Your task to perform on an android device: open app "Pluto TV - Live TV and Movies" Image 0: 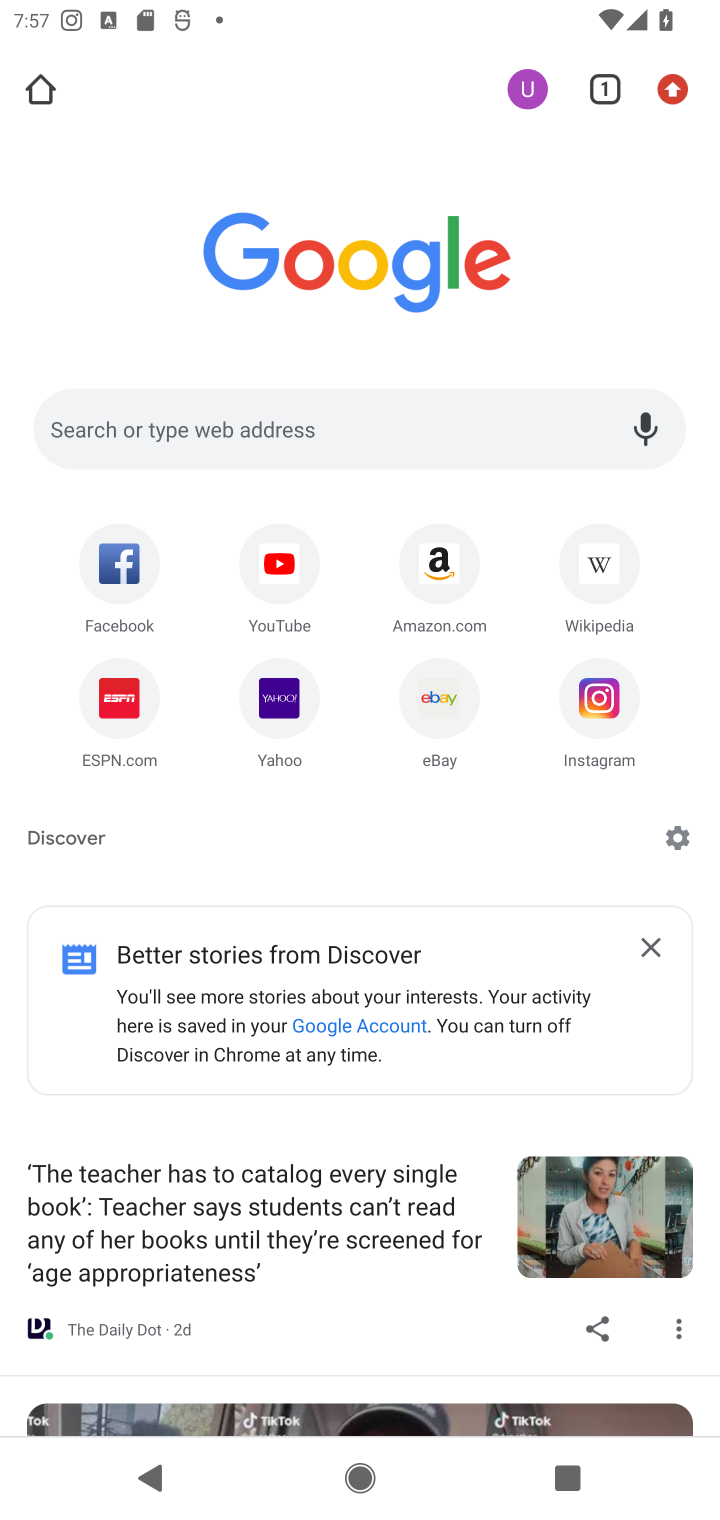
Step 0: press home button
Your task to perform on an android device: open app "Pluto TV - Live TV and Movies" Image 1: 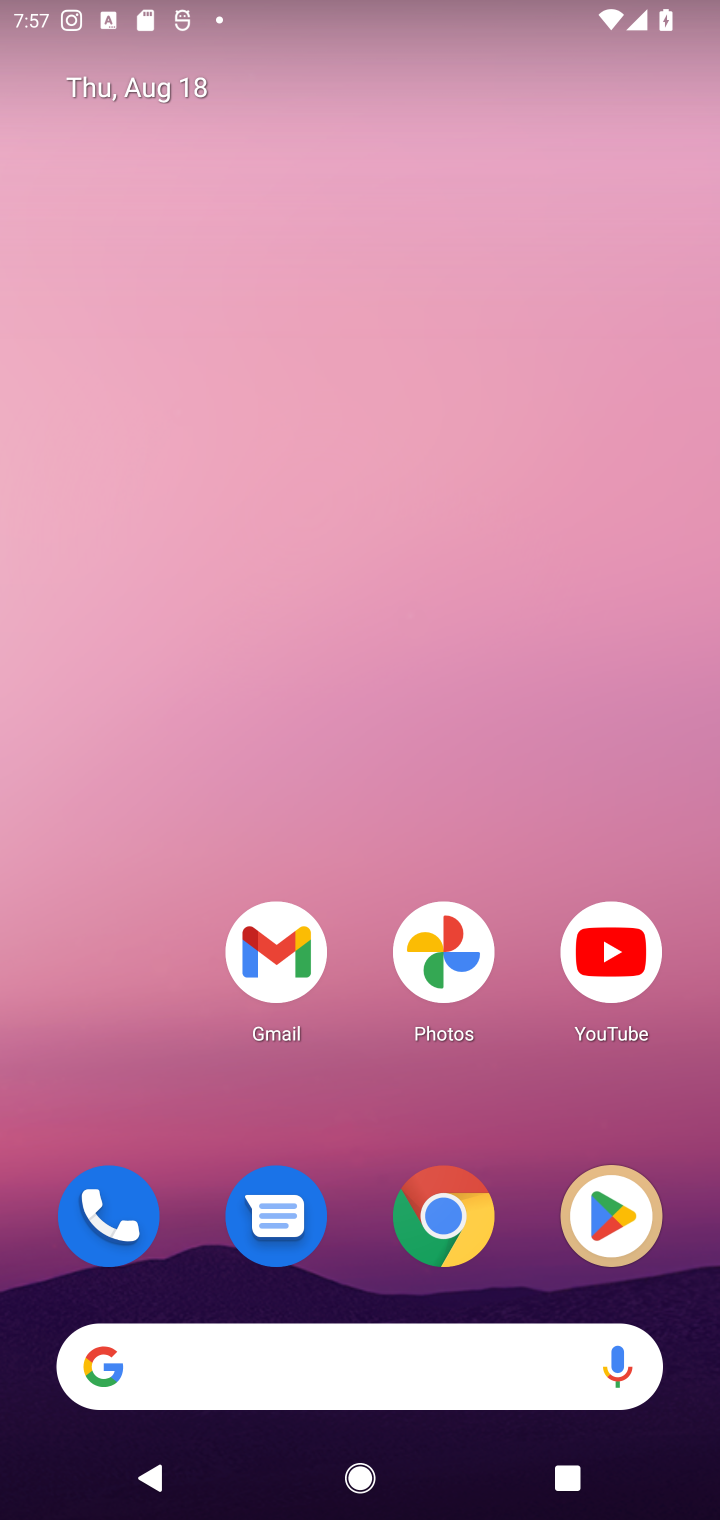
Step 1: click (609, 1206)
Your task to perform on an android device: open app "Pluto TV - Live TV and Movies" Image 2: 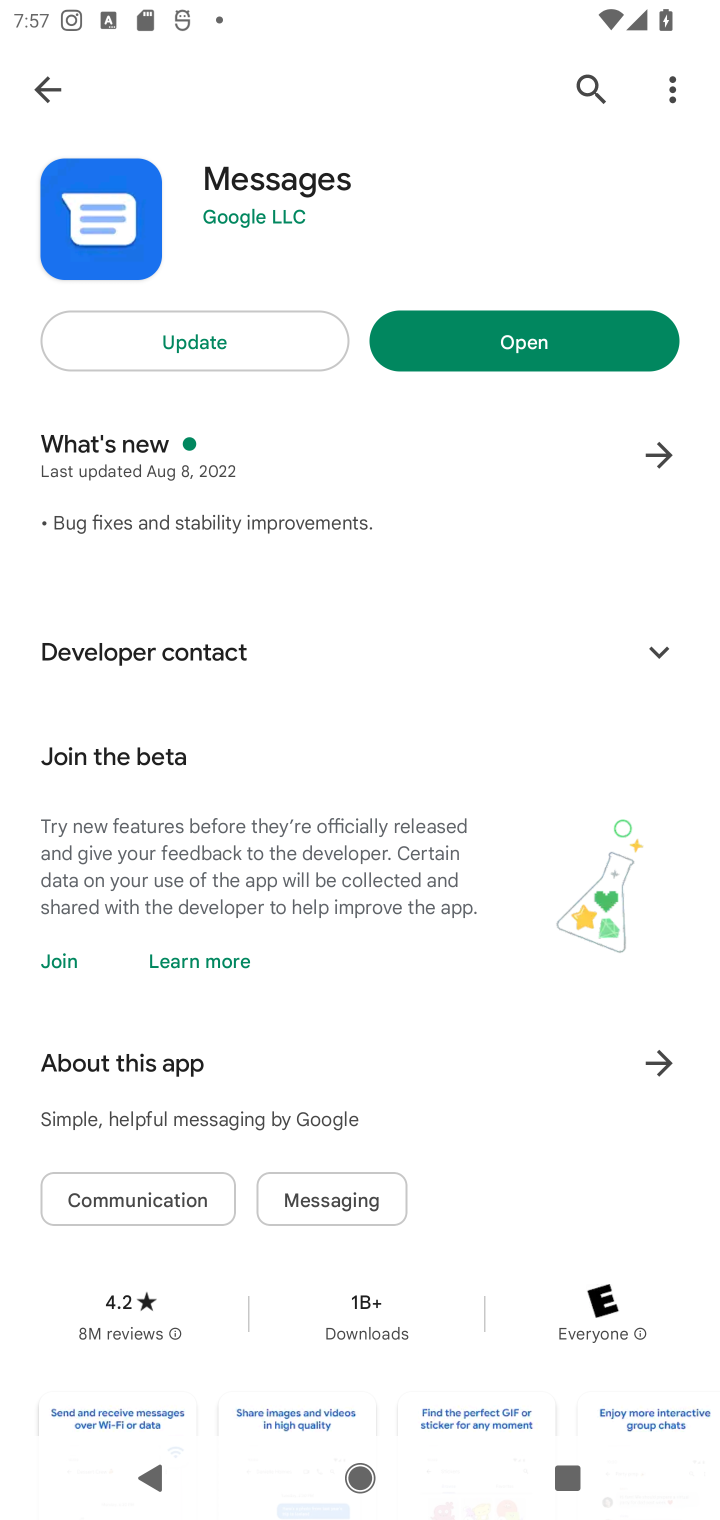
Step 2: click (593, 98)
Your task to perform on an android device: open app "Pluto TV - Live TV and Movies" Image 3: 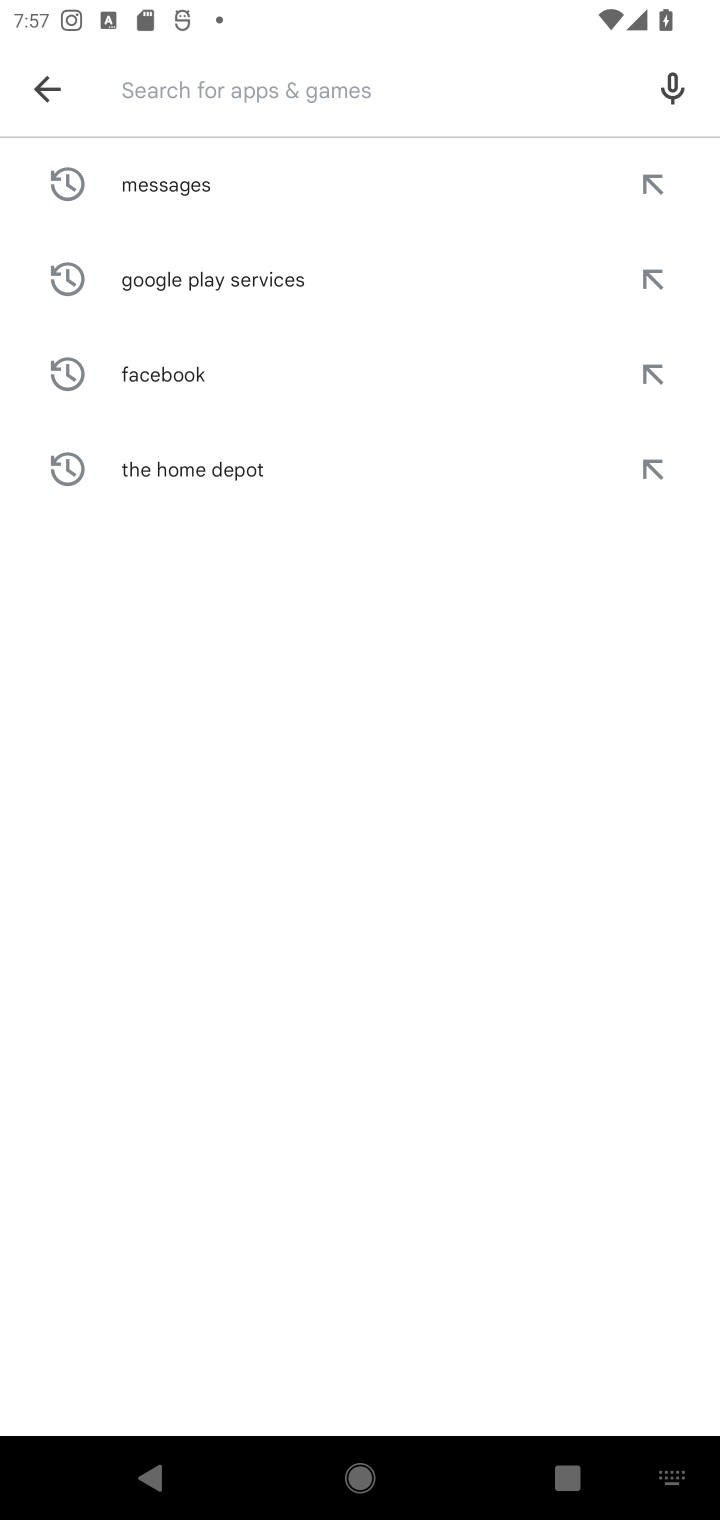
Step 3: type "Pluto TV - Live TV and Movies"
Your task to perform on an android device: open app "Pluto TV - Live TV and Movies" Image 4: 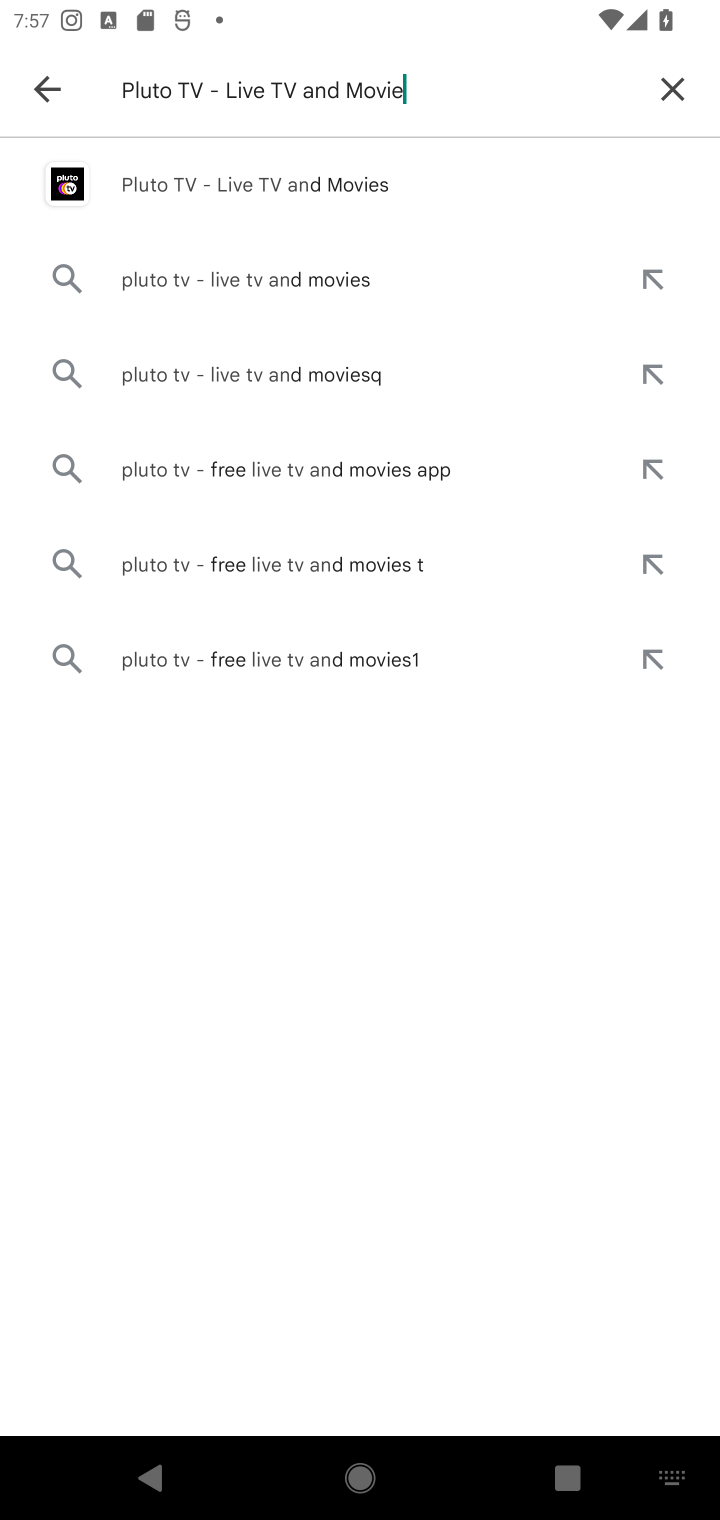
Step 4: type ""
Your task to perform on an android device: open app "Pluto TV - Live TV and Movies" Image 5: 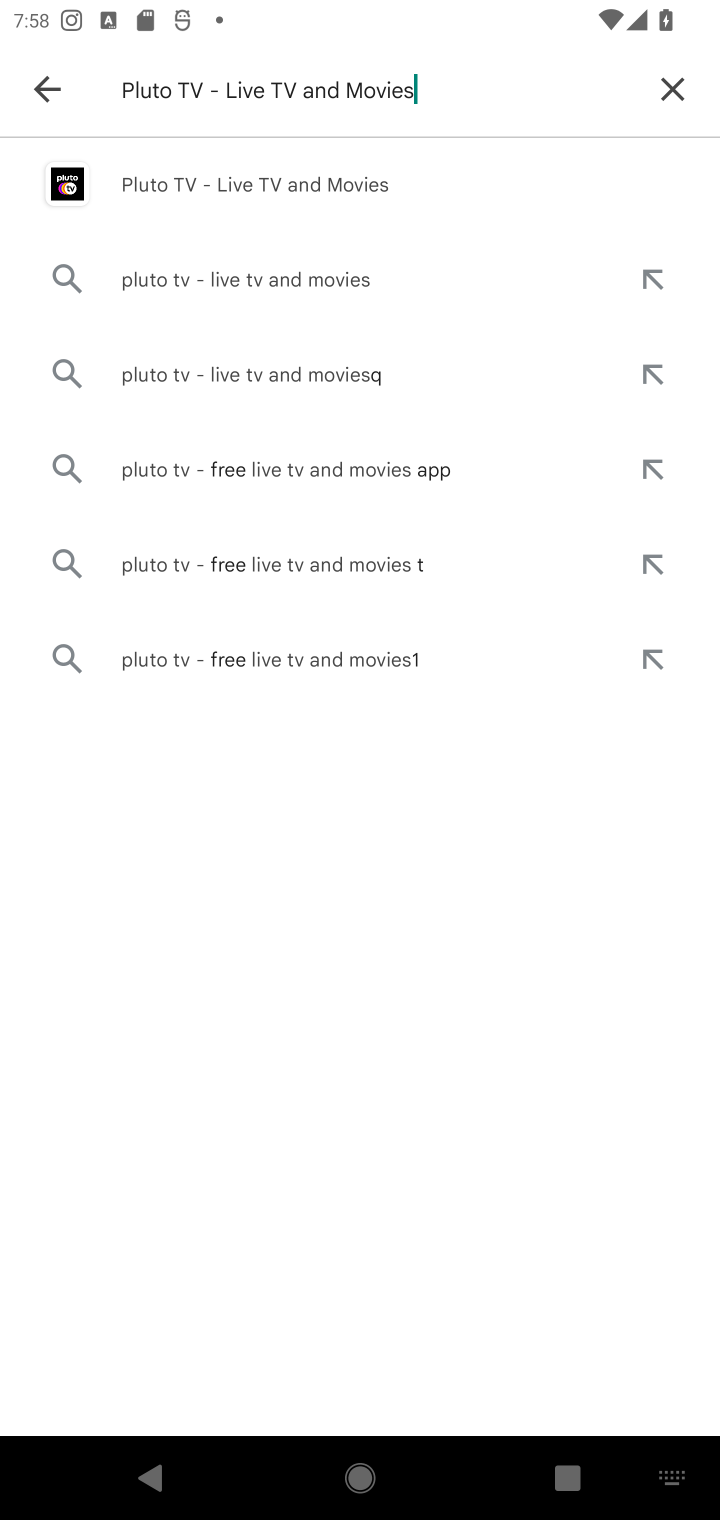
Step 5: click (257, 178)
Your task to perform on an android device: open app "Pluto TV - Live TV and Movies" Image 6: 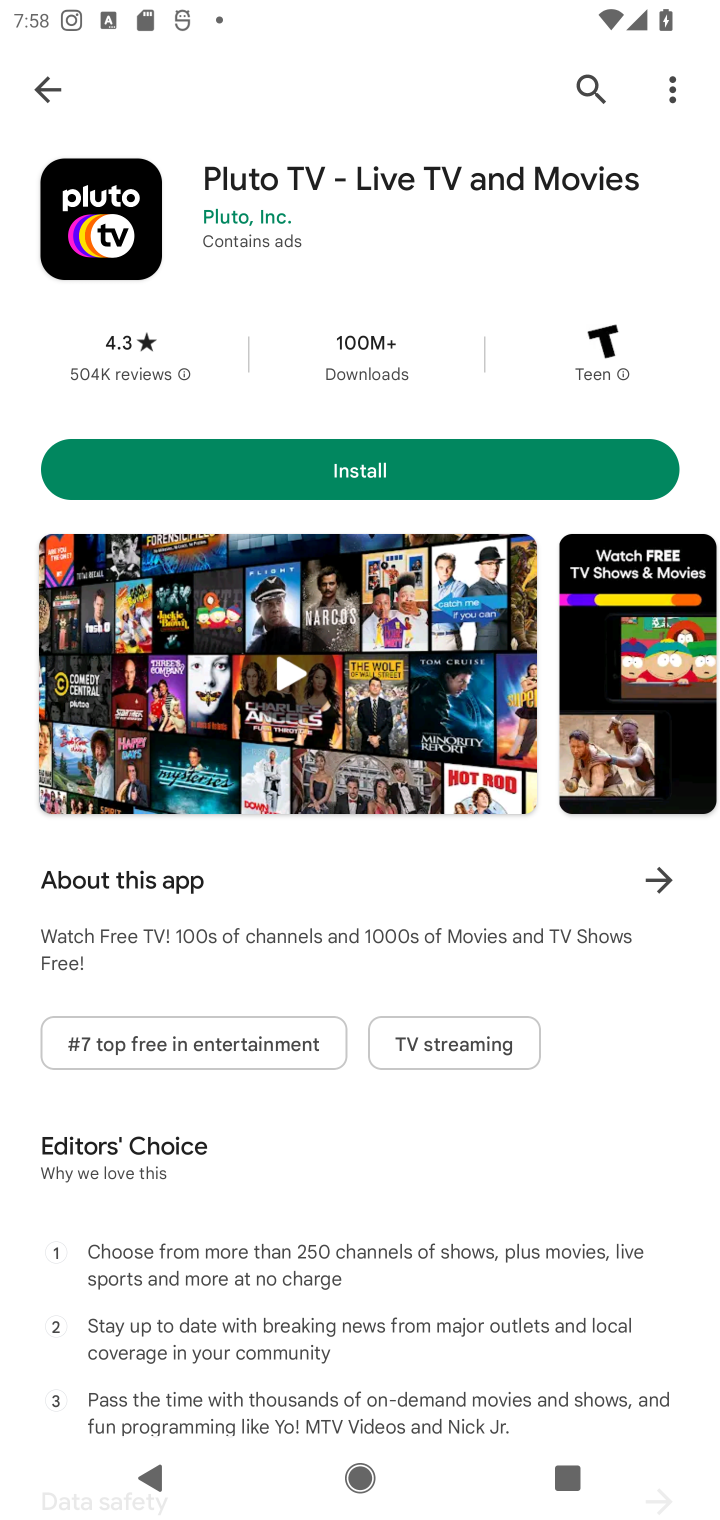
Step 6: task complete